Your task to perform on an android device: turn on improve location accuracy Image 0: 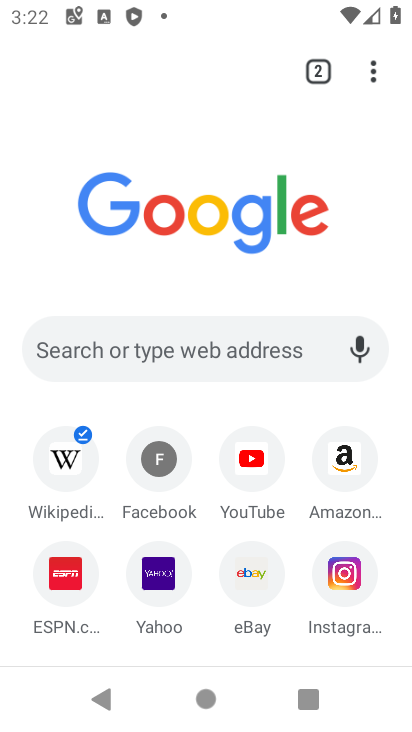
Step 0: click (368, 83)
Your task to perform on an android device: turn on improve location accuracy Image 1: 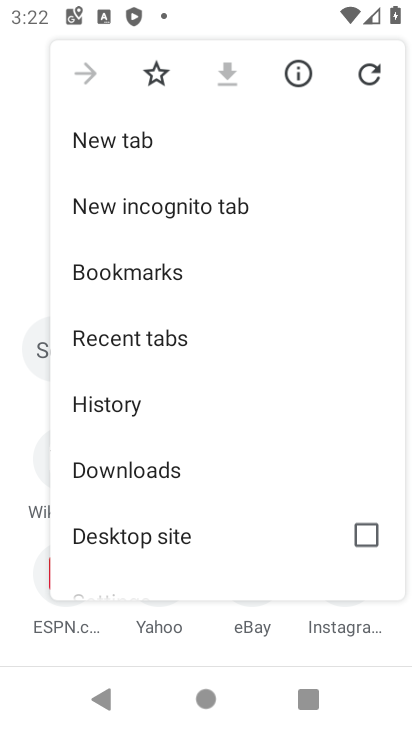
Step 1: press home button
Your task to perform on an android device: turn on improve location accuracy Image 2: 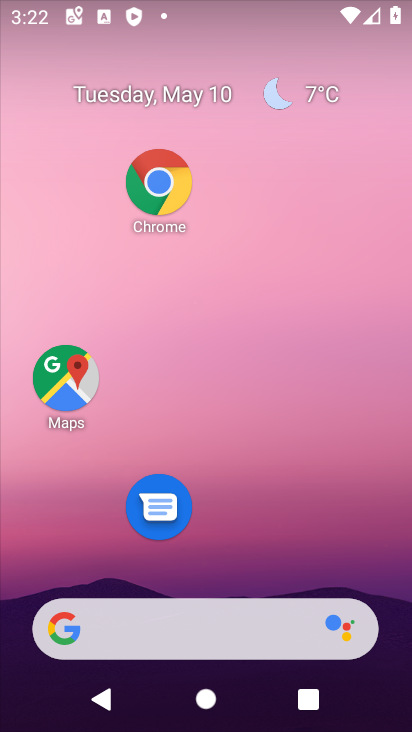
Step 2: drag from (276, 524) to (235, 175)
Your task to perform on an android device: turn on improve location accuracy Image 3: 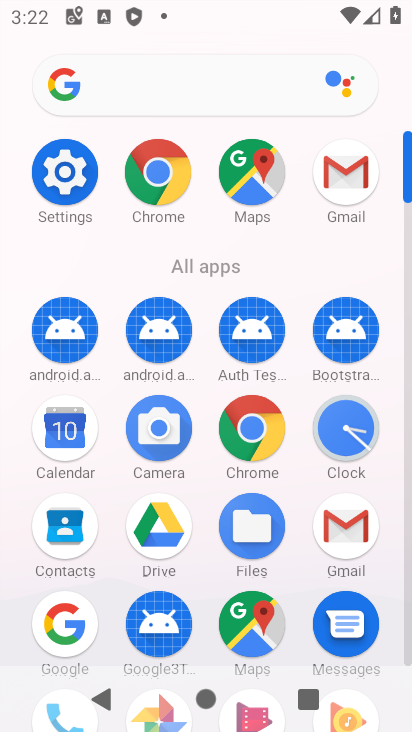
Step 3: click (84, 202)
Your task to perform on an android device: turn on improve location accuracy Image 4: 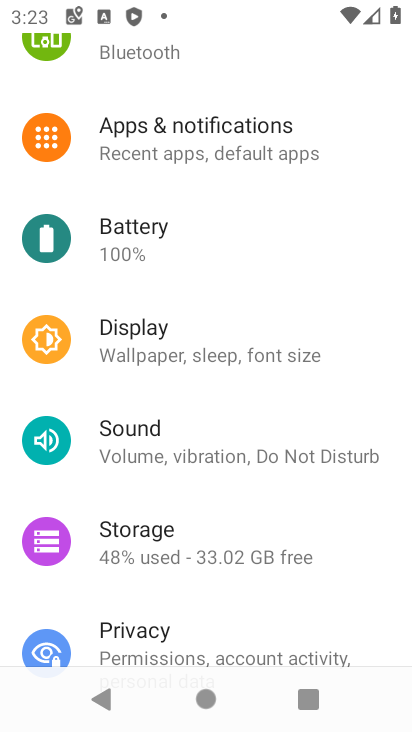
Step 4: drag from (207, 595) to (182, 142)
Your task to perform on an android device: turn on improve location accuracy Image 5: 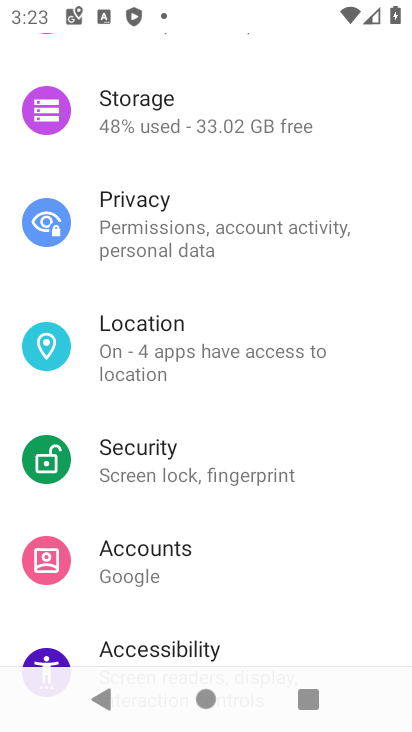
Step 5: click (166, 316)
Your task to perform on an android device: turn on improve location accuracy Image 6: 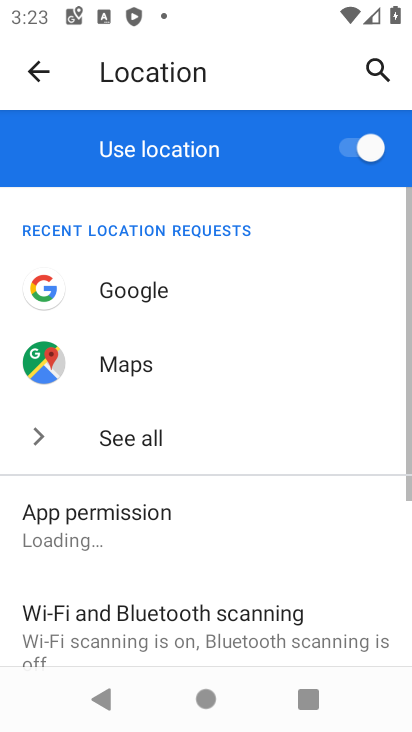
Step 6: drag from (207, 625) to (172, 221)
Your task to perform on an android device: turn on improve location accuracy Image 7: 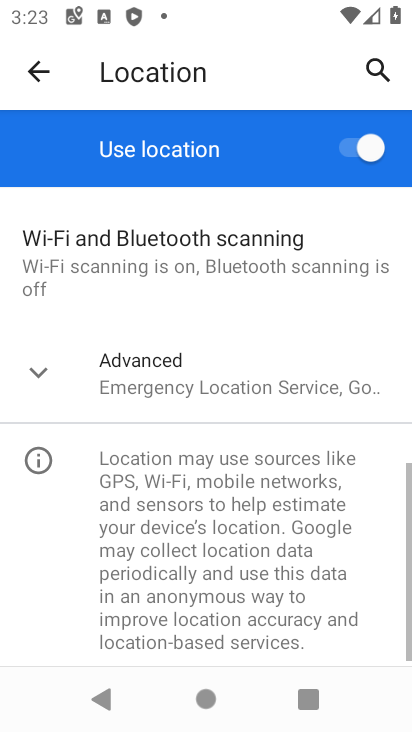
Step 7: click (169, 407)
Your task to perform on an android device: turn on improve location accuracy Image 8: 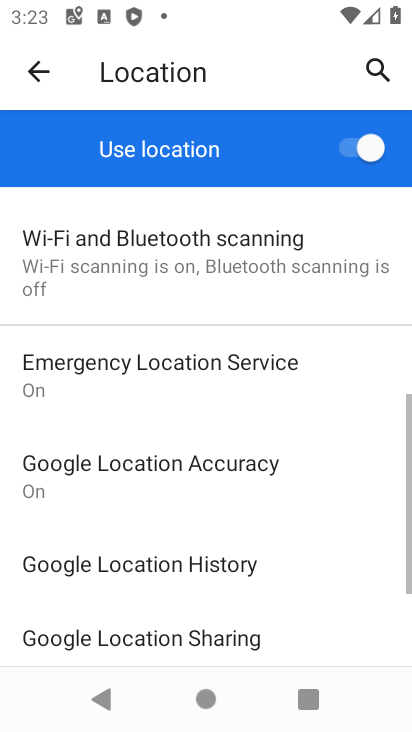
Step 8: task complete